Your task to perform on an android device: Open Youtube and go to the subscriptions tab Image 0: 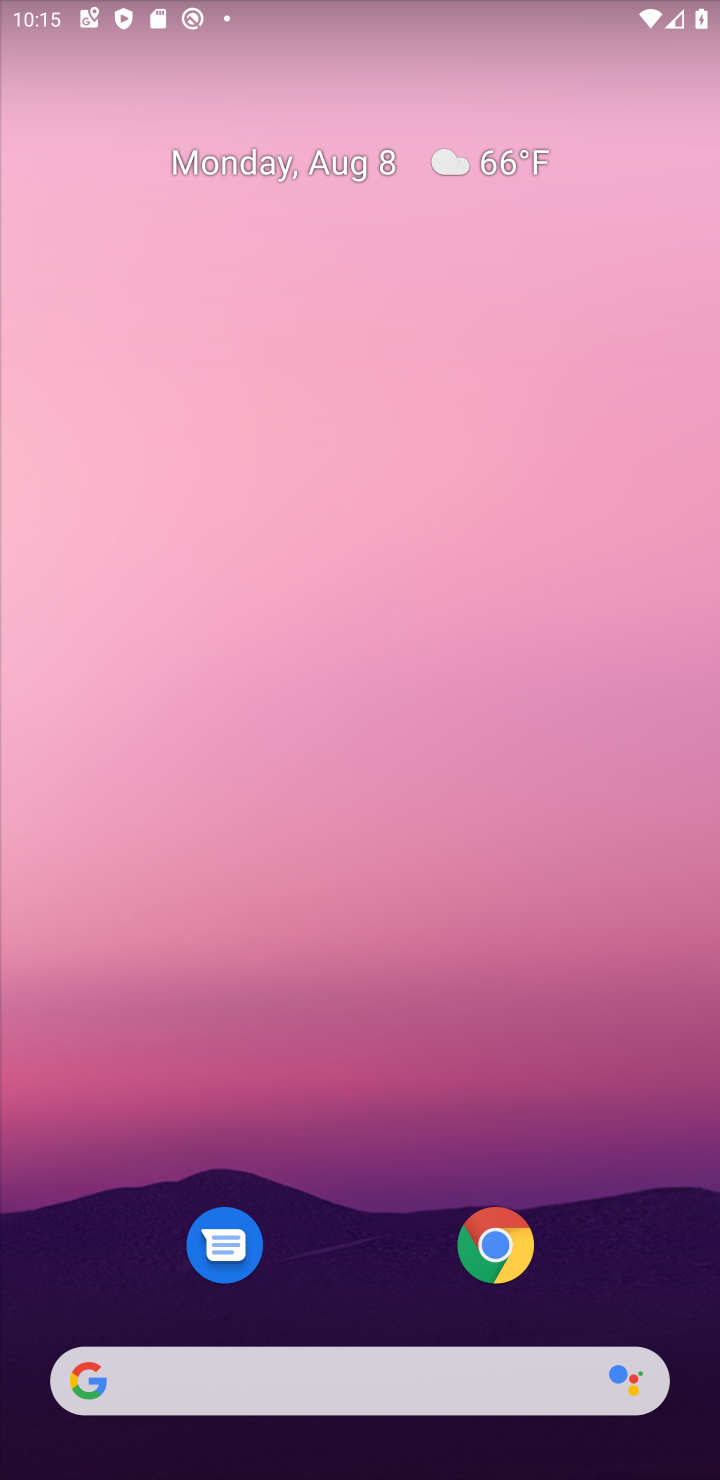
Step 0: click (322, 228)
Your task to perform on an android device: Open Youtube and go to the subscriptions tab Image 1: 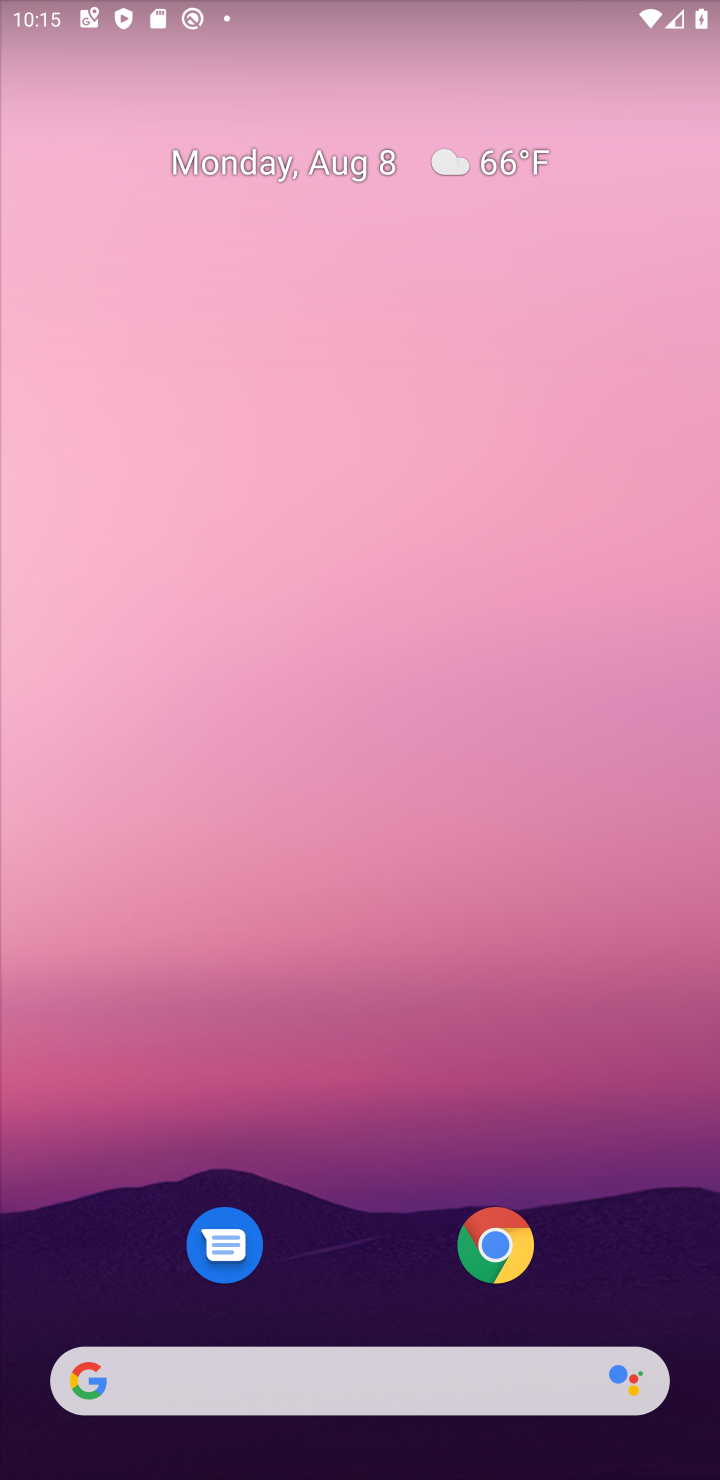
Step 1: drag from (366, 1271) to (351, 19)
Your task to perform on an android device: Open Youtube and go to the subscriptions tab Image 2: 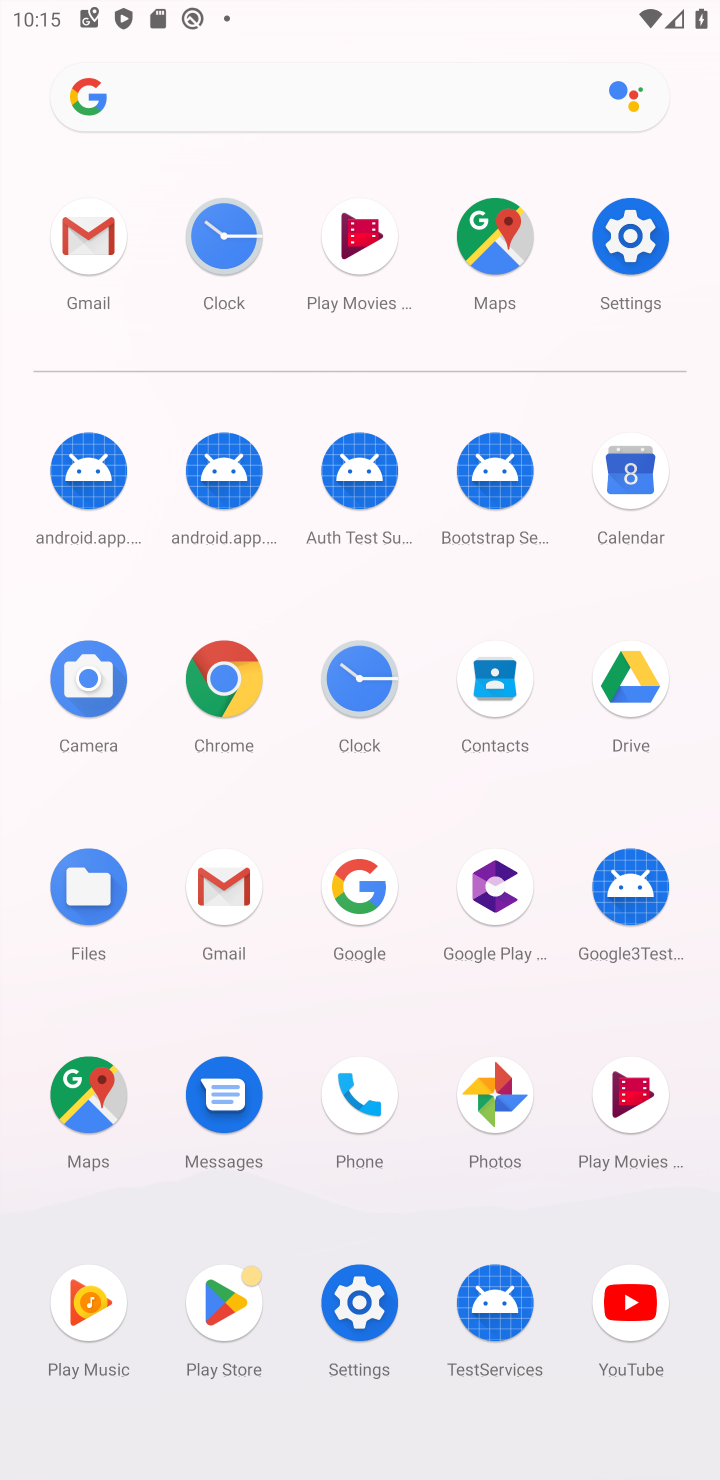
Step 2: click (632, 1297)
Your task to perform on an android device: Open Youtube and go to the subscriptions tab Image 3: 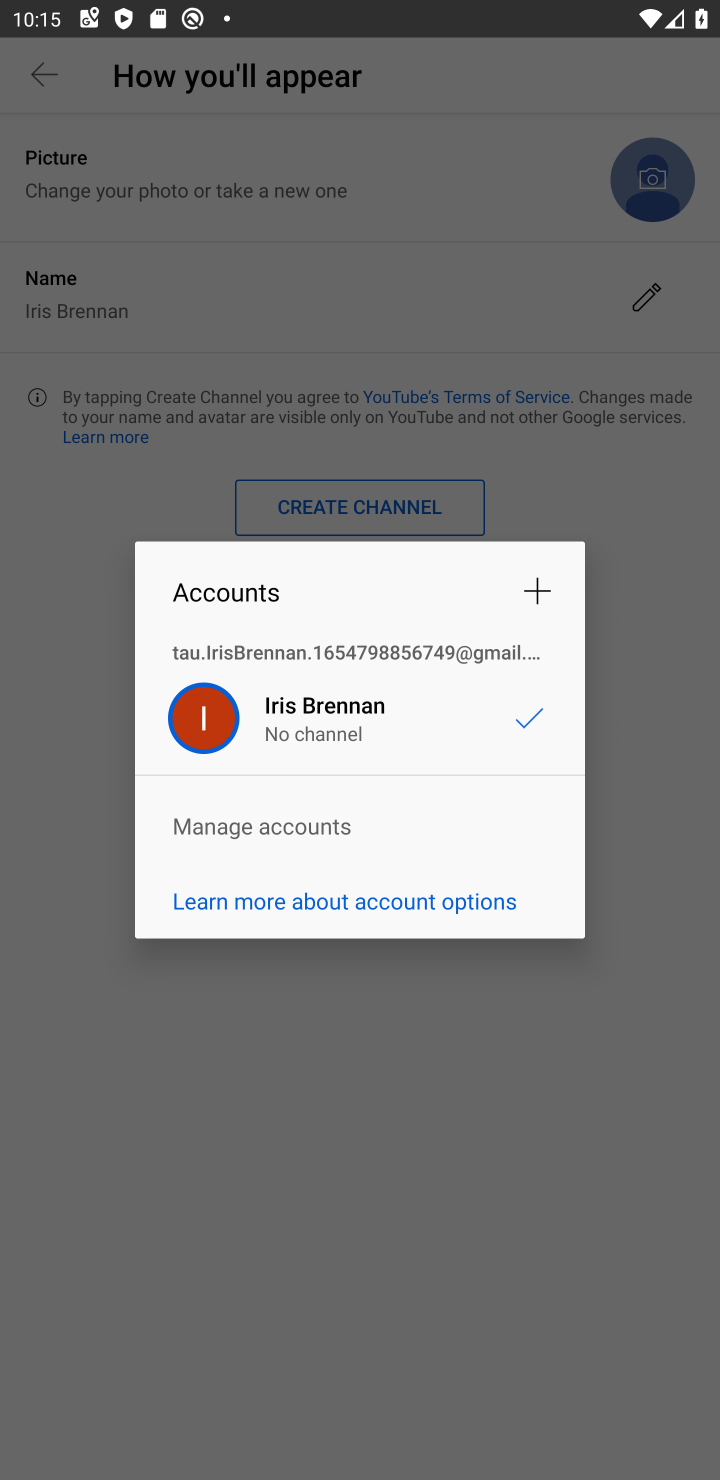
Step 3: click (339, 705)
Your task to perform on an android device: Open Youtube and go to the subscriptions tab Image 4: 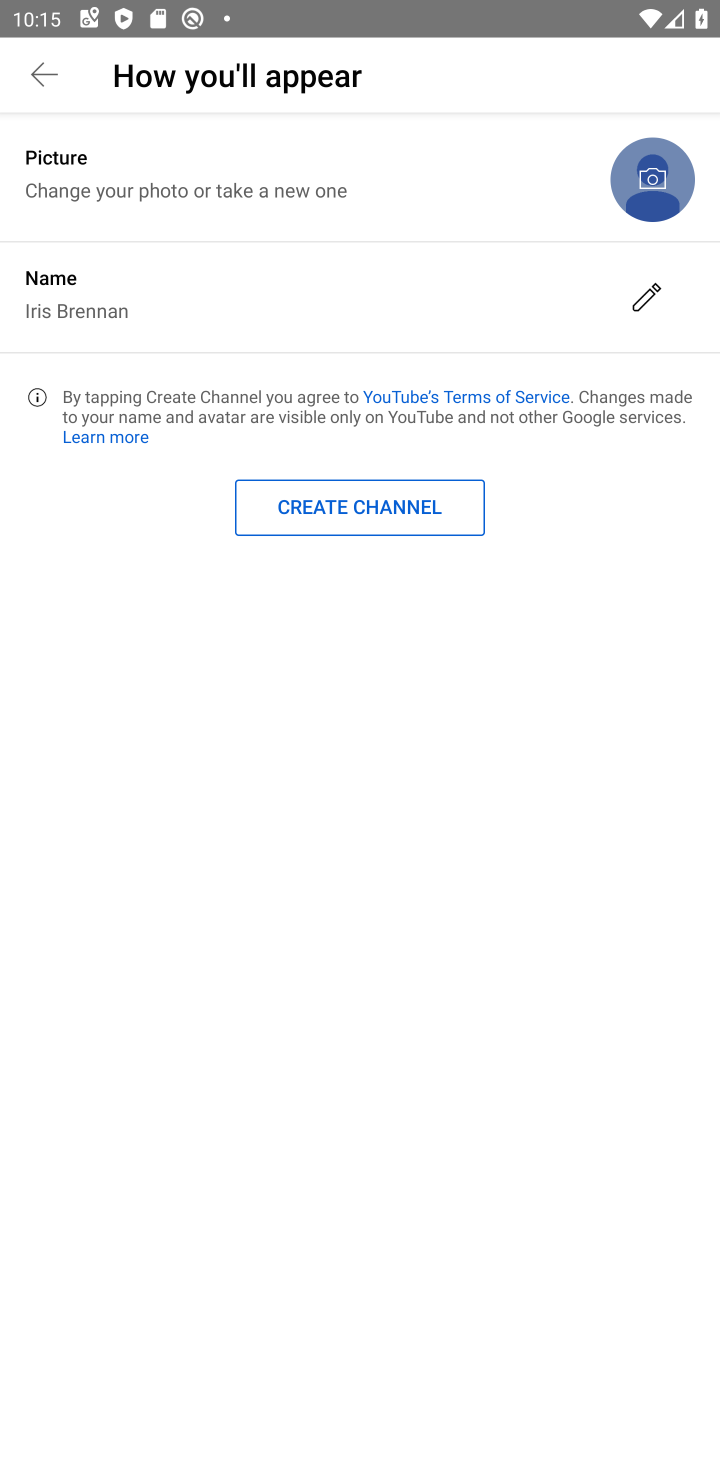
Step 4: click (38, 73)
Your task to perform on an android device: Open Youtube and go to the subscriptions tab Image 5: 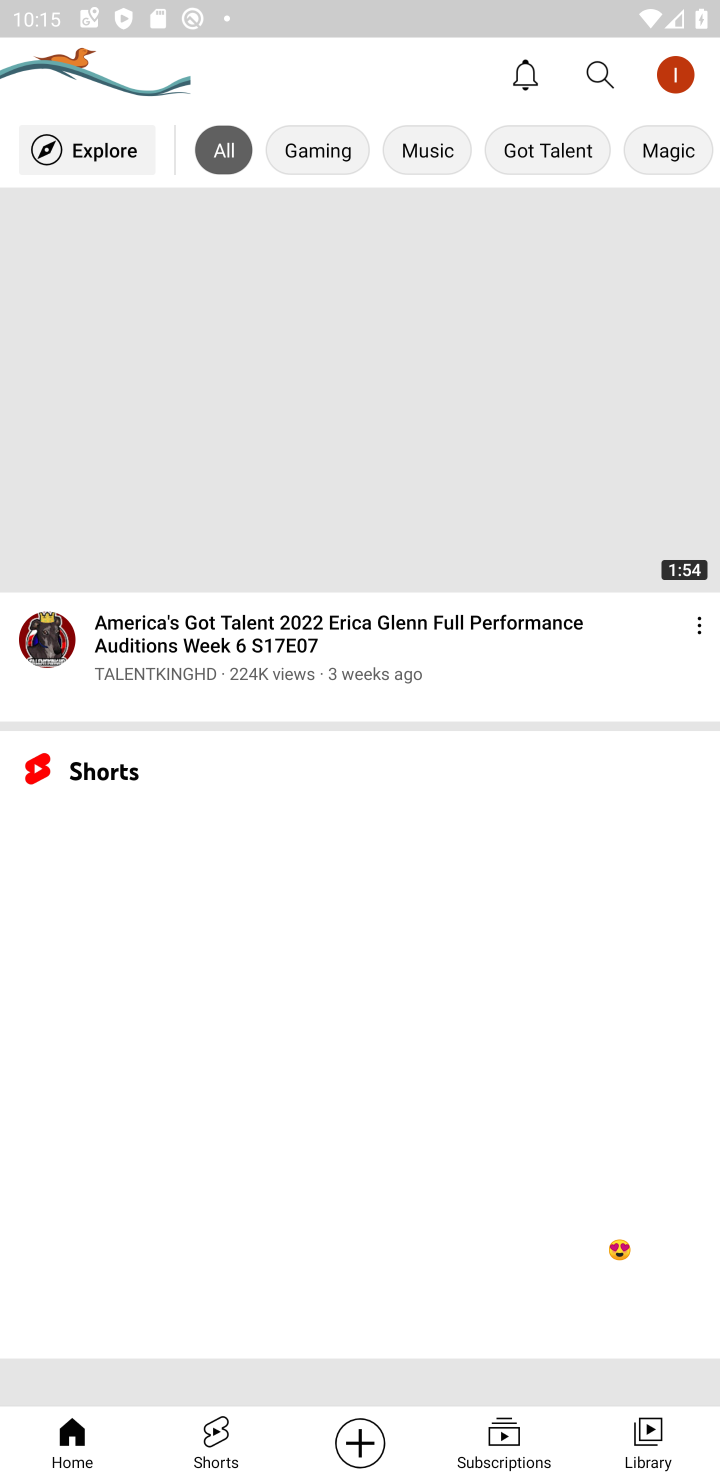
Step 5: click (506, 1426)
Your task to perform on an android device: Open Youtube and go to the subscriptions tab Image 6: 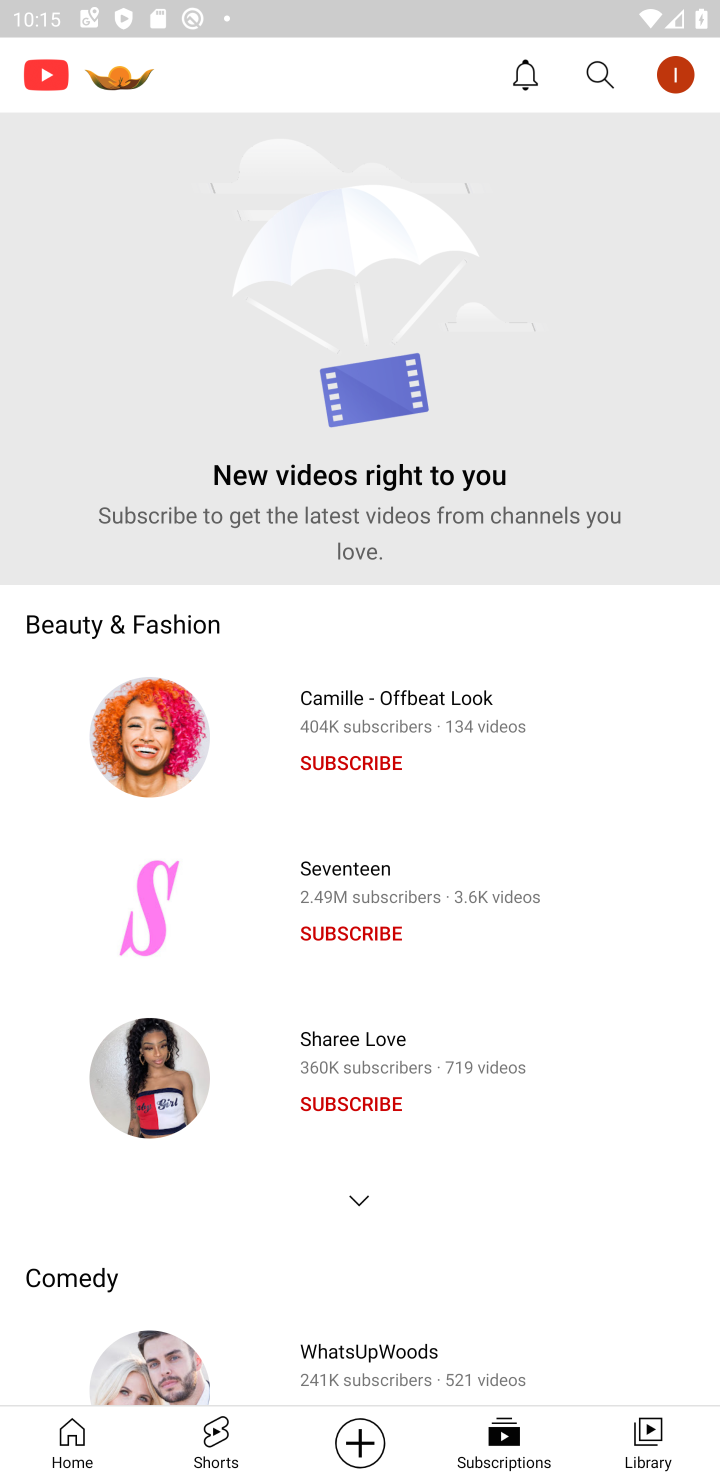
Step 6: task complete